Your task to perform on an android device: refresh tabs in the chrome app Image 0: 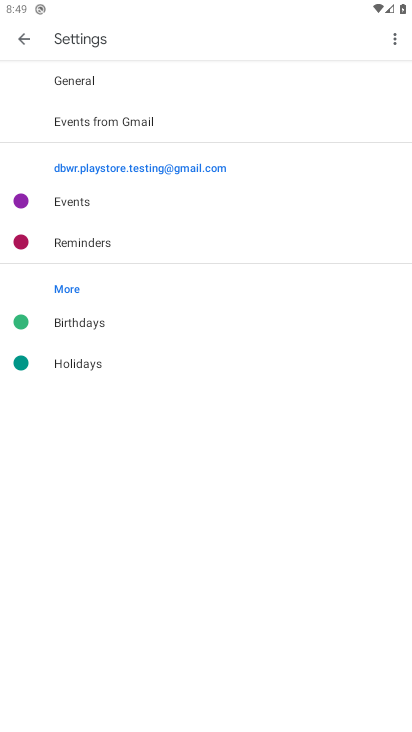
Step 0: press home button
Your task to perform on an android device: refresh tabs in the chrome app Image 1: 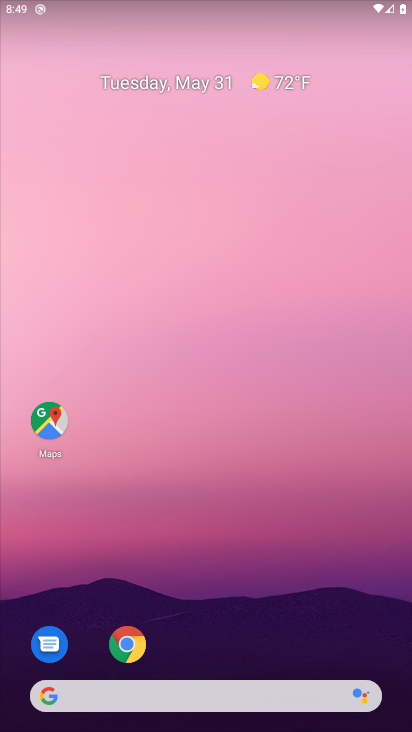
Step 1: click (128, 638)
Your task to perform on an android device: refresh tabs in the chrome app Image 2: 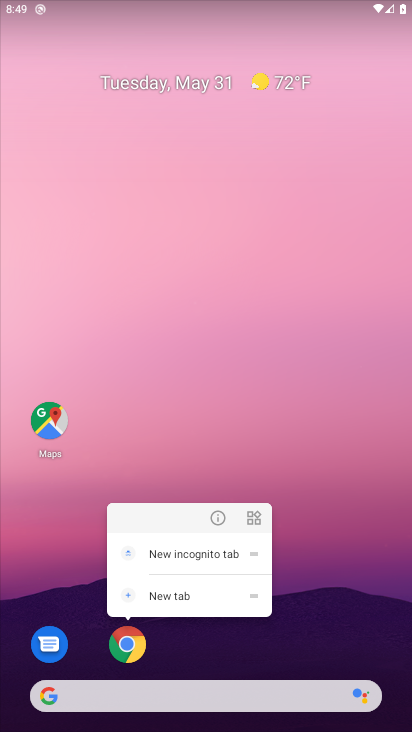
Step 2: click (124, 639)
Your task to perform on an android device: refresh tabs in the chrome app Image 3: 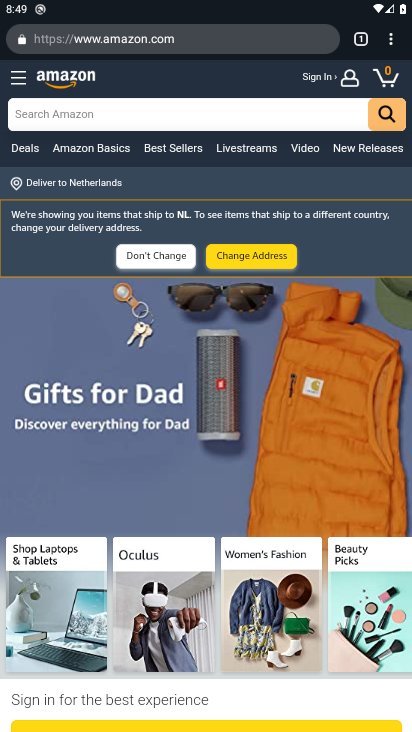
Step 3: click (390, 38)
Your task to perform on an android device: refresh tabs in the chrome app Image 4: 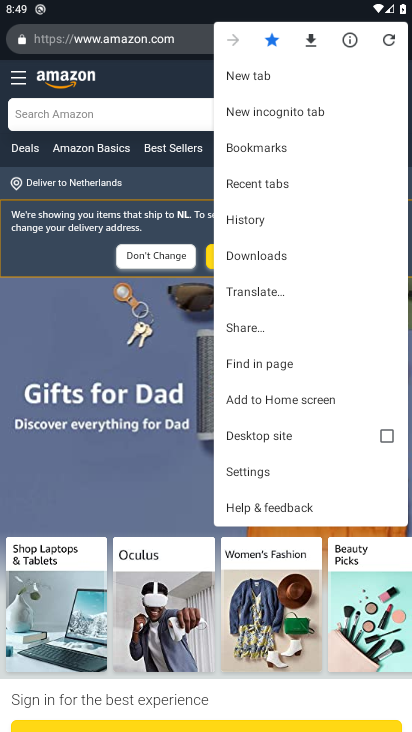
Step 4: click (390, 38)
Your task to perform on an android device: refresh tabs in the chrome app Image 5: 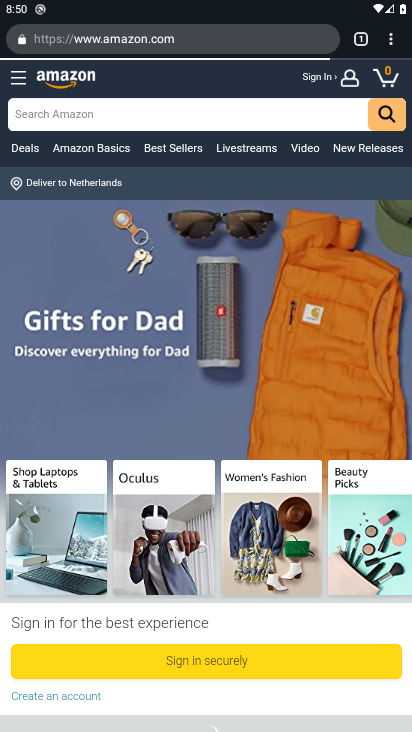
Step 5: task complete